Your task to perform on an android device: Open eBay Image 0: 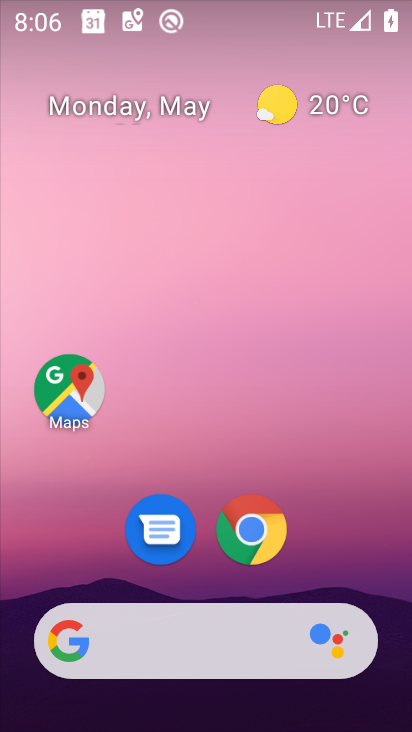
Step 0: click (257, 530)
Your task to perform on an android device: Open eBay Image 1: 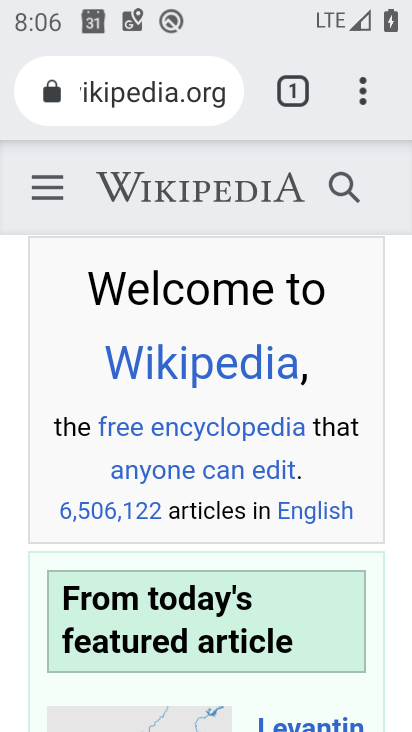
Step 1: click (284, 101)
Your task to perform on an android device: Open eBay Image 2: 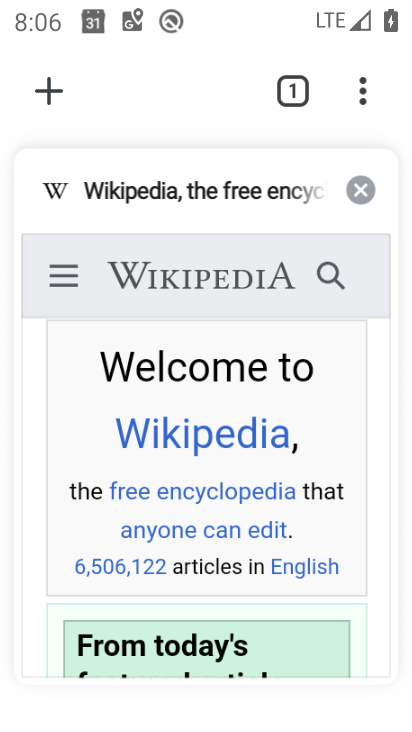
Step 2: click (362, 192)
Your task to perform on an android device: Open eBay Image 3: 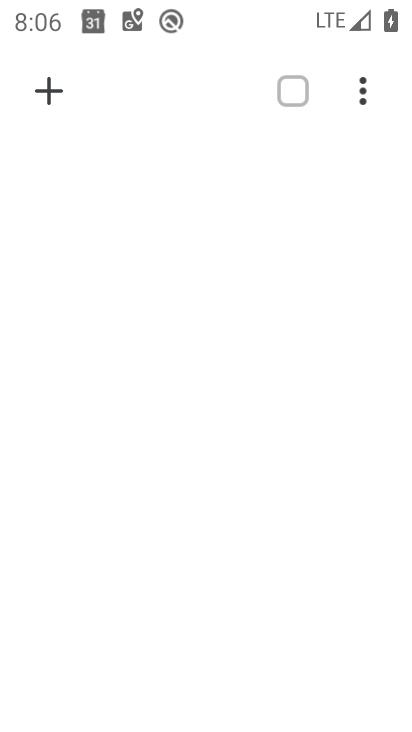
Step 3: click (53, 98)
Your task to perform on an android device: Open eBay Image 4: 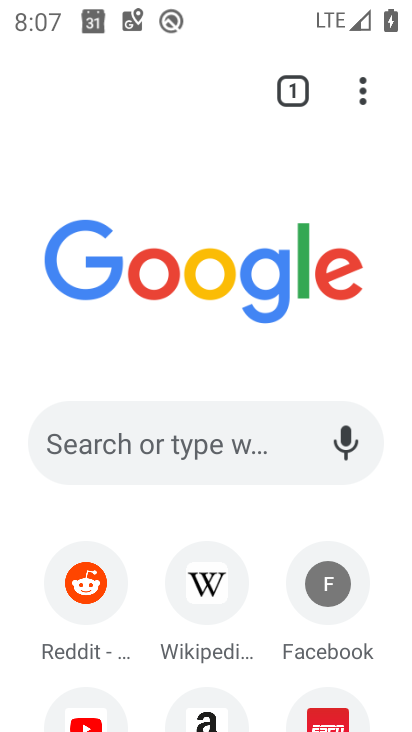
Step 4: drag from (9, 650) to (151, 205)
Your task to perform on an android device: Open eBay Image 5: 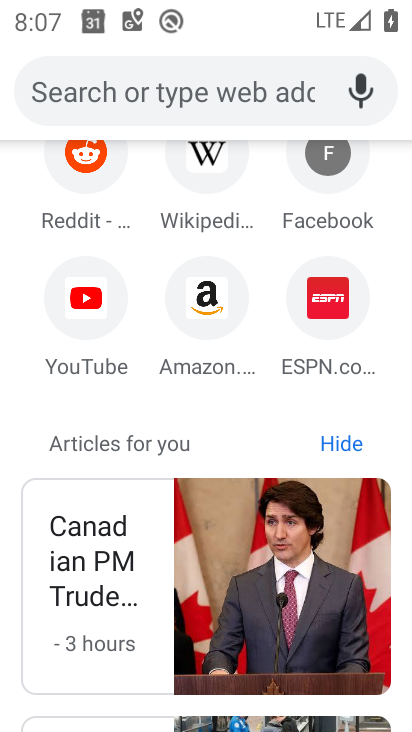
Step 5: drag from (185, 191) to (88, 623)
Your task to perform on an android device: Open eBay Image 6: 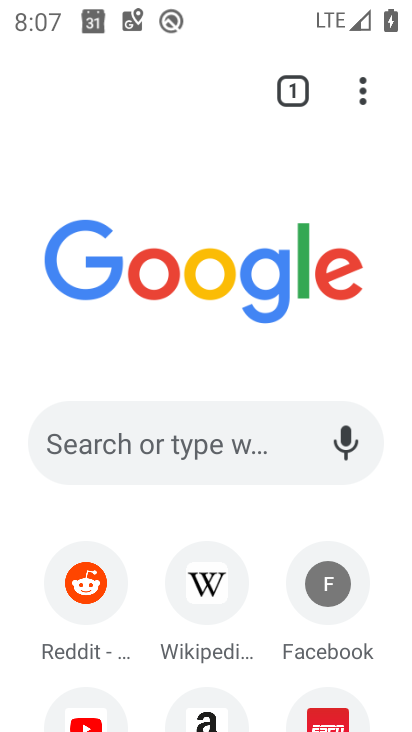
Step 6: click (143, 455)
Your task to perform on an android device: Open eBay Image 7: 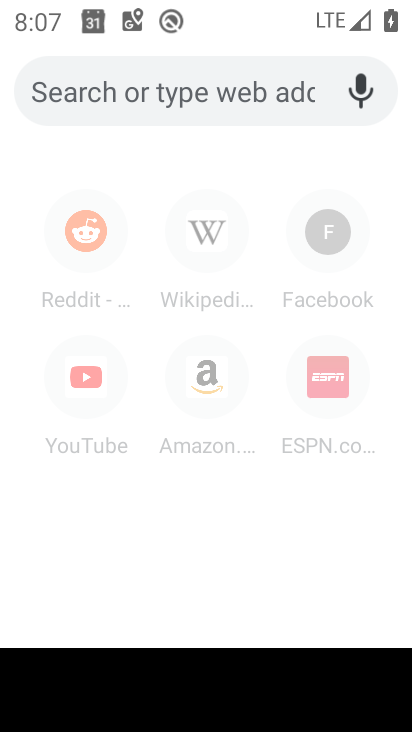
Step 7: type "eBay"
Your task to perform on an android device: Open eBay Image 8: 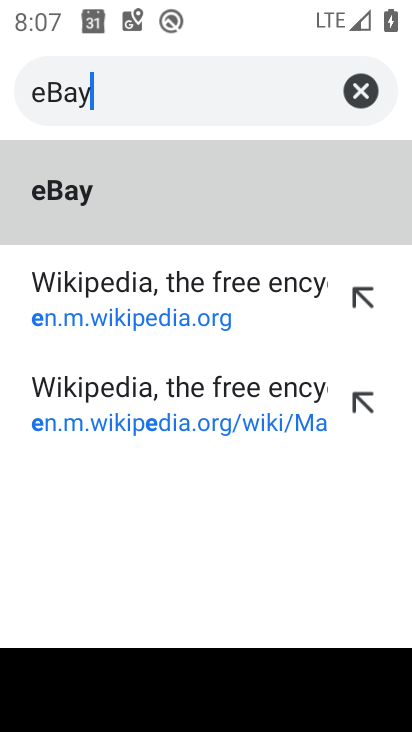
Step 8: type ""
Your task to perform on an android device: Open eBay Image 9: 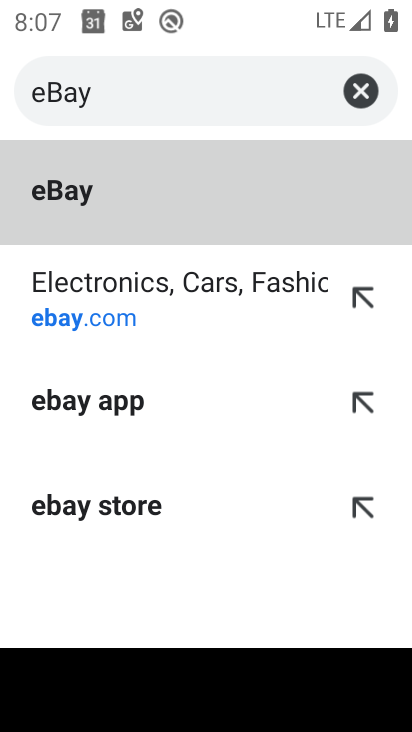
Step 9: click (82, 184)
Your task to perform on an android device: Open eBay Image 10: 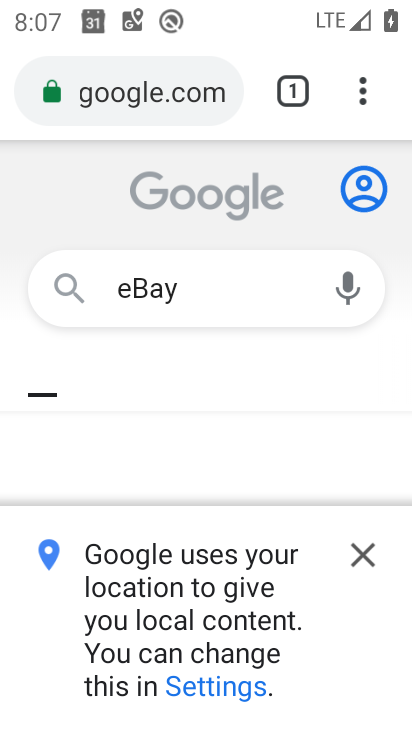
Step 10: click (366, 547)
Your task to perform on an android device: Open eBay Image 11: 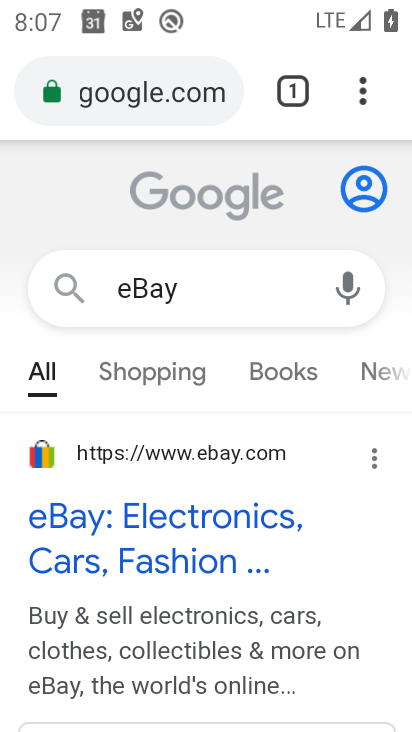
Step 11: click (127, 555)
Your task to perform on an android device: Open eBay Image 12: 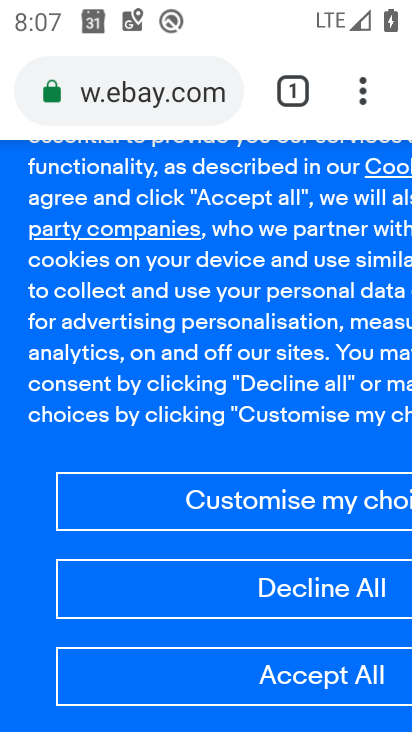
Step 12: task complete